Your task to perform on an android device: open wifi settings Image 0: 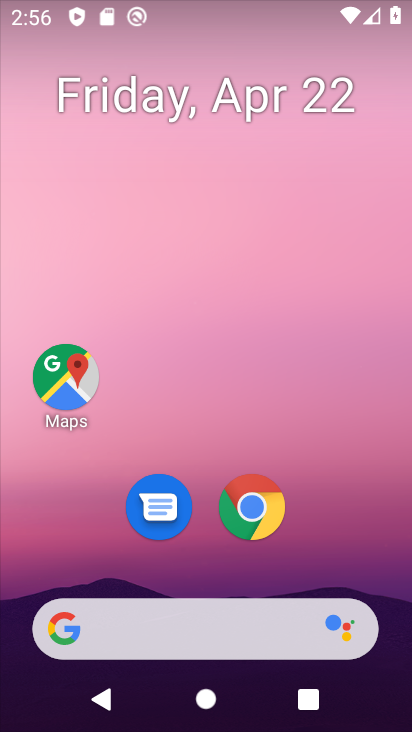
Step 0: drag from (326, 547) to (317, 85)
Your task to perform on an android device: open wifi settings Image 1: 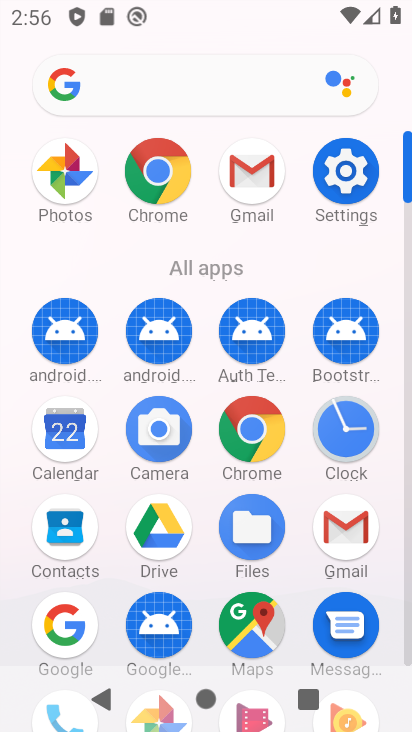
Step 1: click (363, 179)
Your task to perform on an android device: open wifi settings Image 2: 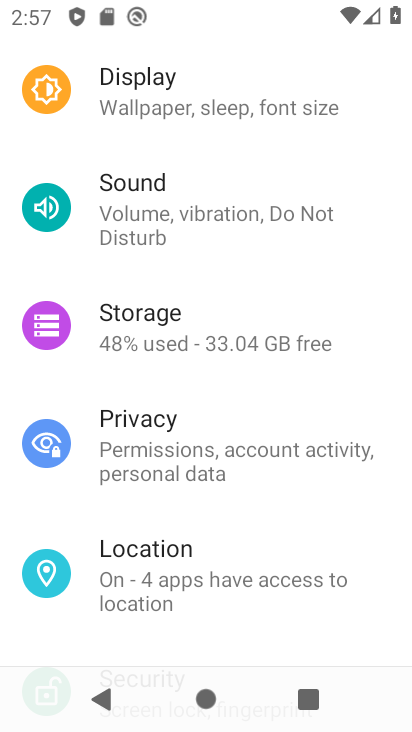
Step 2: drag from (195, 179) to (172, 532)
Your task to perform on an android device: open wifi settings Image 3: 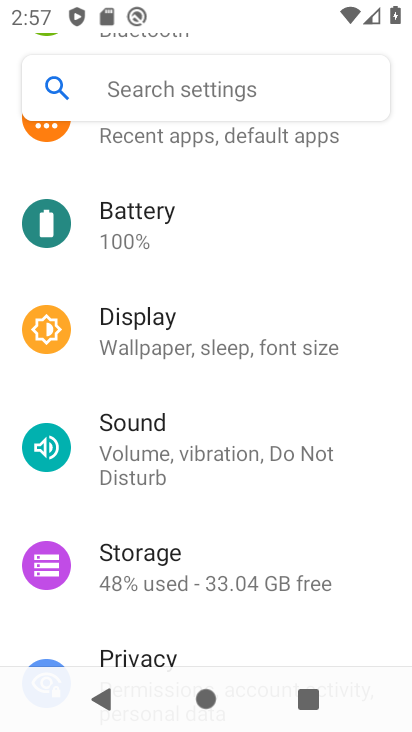
Step 3: drag from (230, 225) to (188, 549)
Your task to perform on an android device: open wifi settings Image 4: 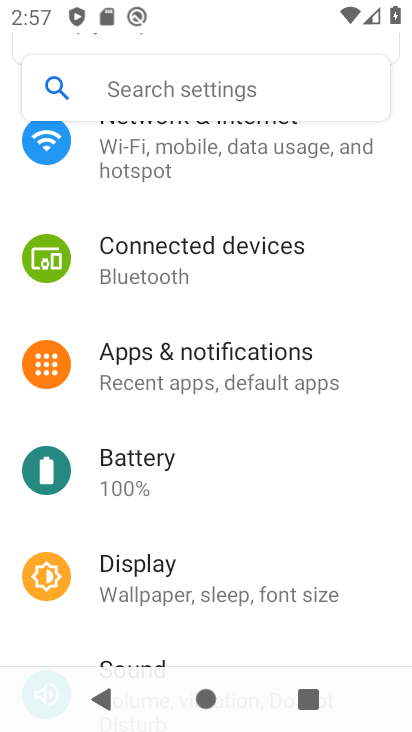
Step 4: drag from (239, 207) to (207, 588)
Your task to perform on an android device: open wifi settings Image 5: 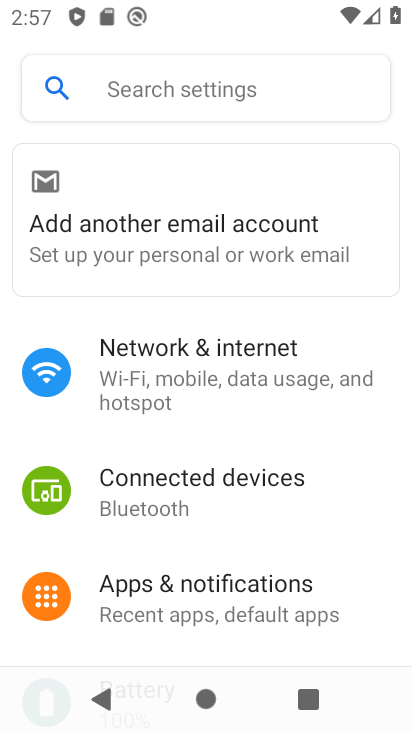
Step 5: click (241, 398)
Your task to perform on an android device: open wifi settings Image 6: 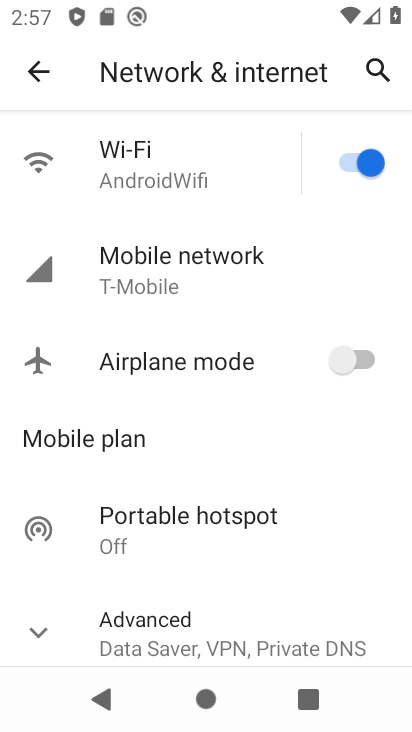
Step 6: click (172, 177)
Your task to perform on an android device: open wifi settings Image 7: 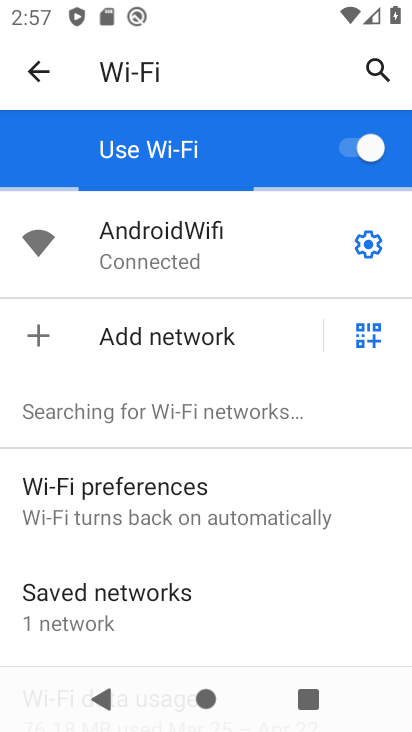
Step 7: task complete